Your task to perform on an android device: change the clock display to analog Image 0: 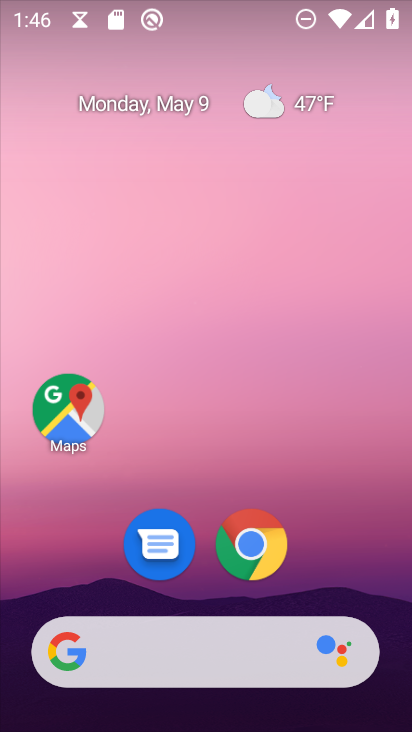
Step 0: drag from (396, 566) to (411, 174)
Your task to perform on an android device: change the clock display to analog Image 1: 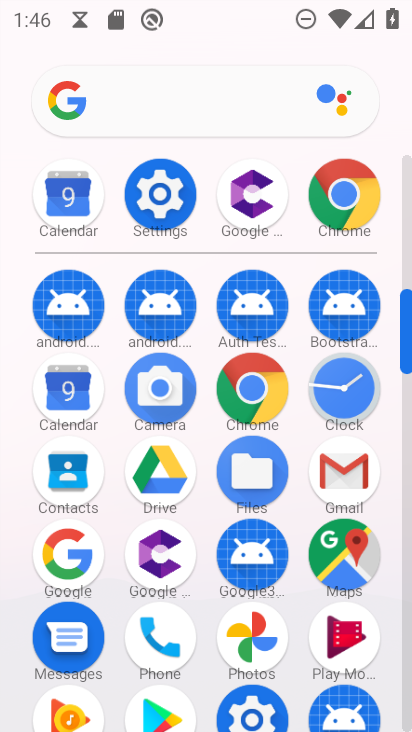
Step 1: click (373, 384)
Your task to perform on an android device: change the clock display to analog Image 2: 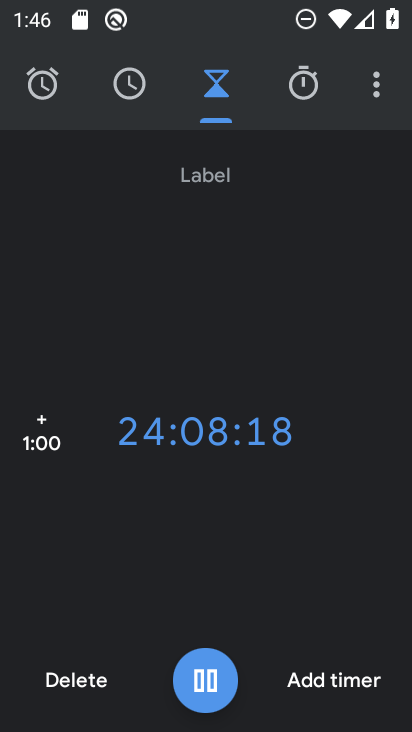
Step 2: click (389, 96)
Your task to perform on an android device: change the clock display to analog Image 3: 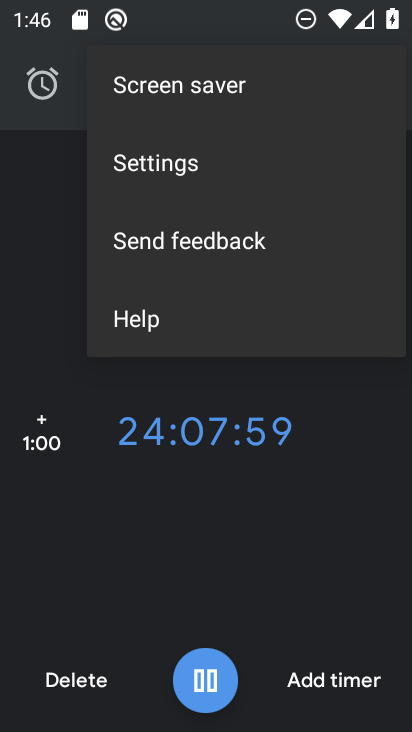
Step 3: click (149, 158)
Your task to perform on an android device: change the clock display to analog Image 4: 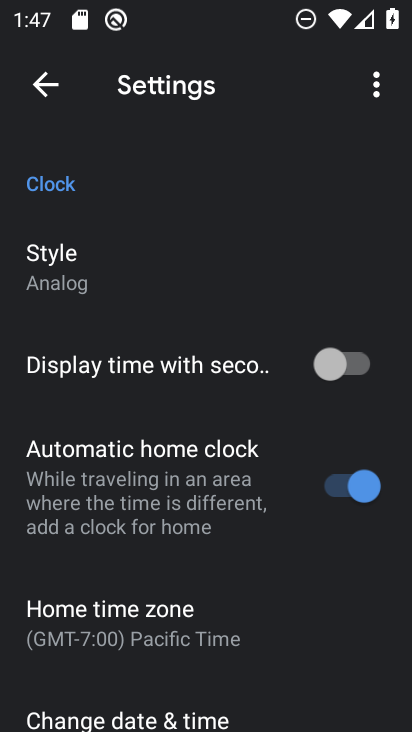
Step 4: click (95, 275)
Your task to perform on an android device: change the clock display to analog Image 5: 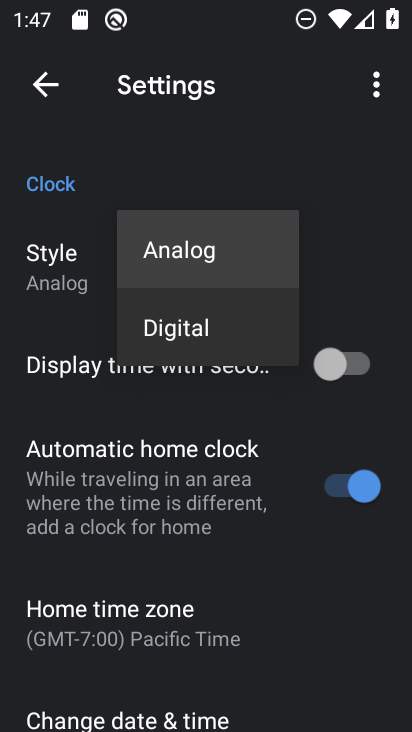
Step 5: click (192, 329)
Your task to perform on an android device: change the clock display to analog Image 6: 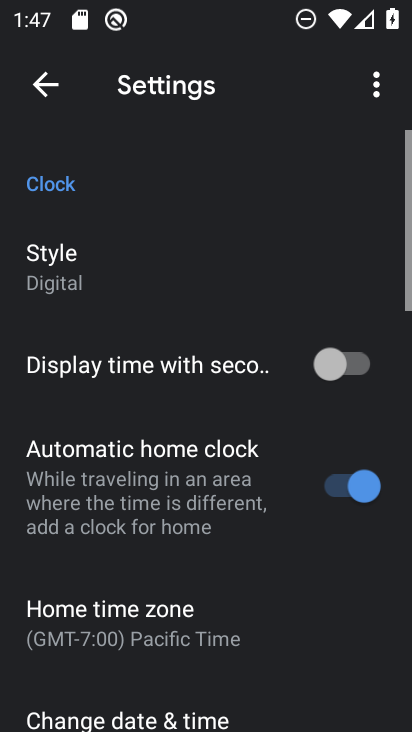
Step 6: click (85, 266)
Your task to perform on an android device: change the clock display to analog Image 7: 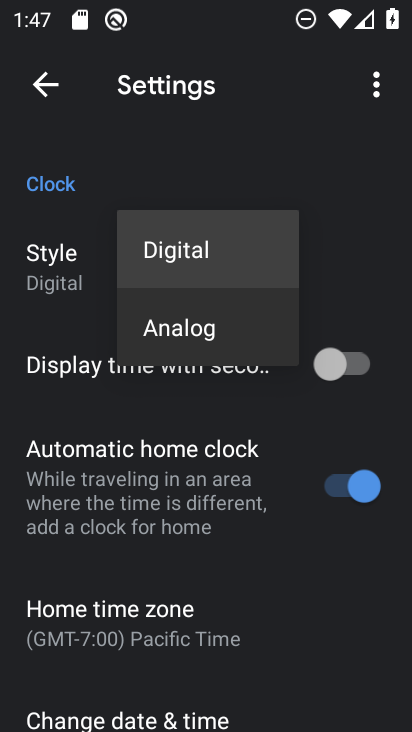
Step 7: click (195, 322)
Your task to perform on an android device: change the clock display to analog Image 8: 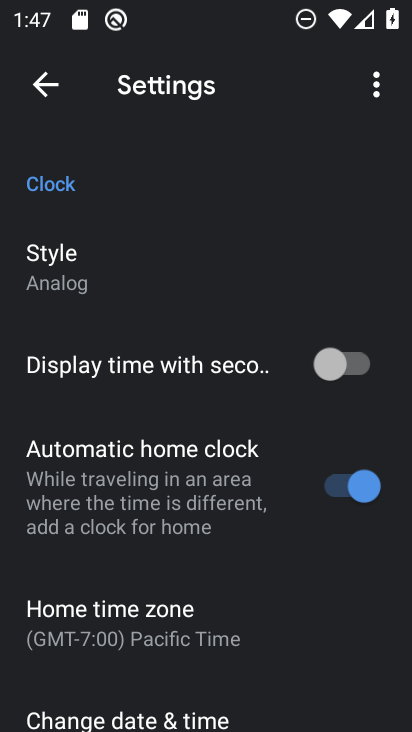
Step 8: task complete